Your task to perform on an android device: Open location settings Image 0: 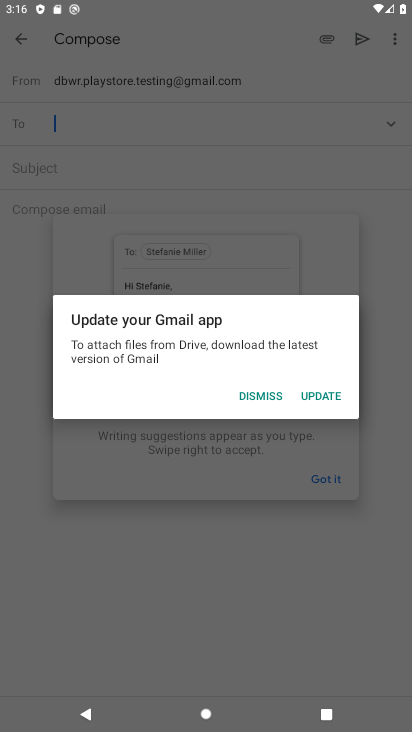
Step 0: click (312, 382)
Your task to perform on an android device: Open location settings Image 1: 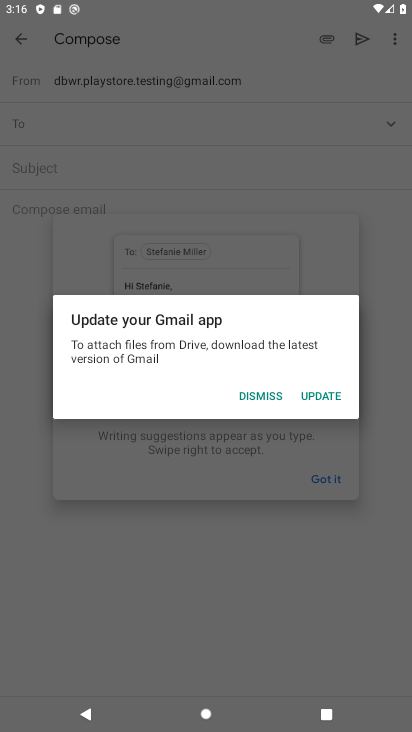
Step 1: click (316, 387)
Your task to perform on an android device: Open location settings Image 2: 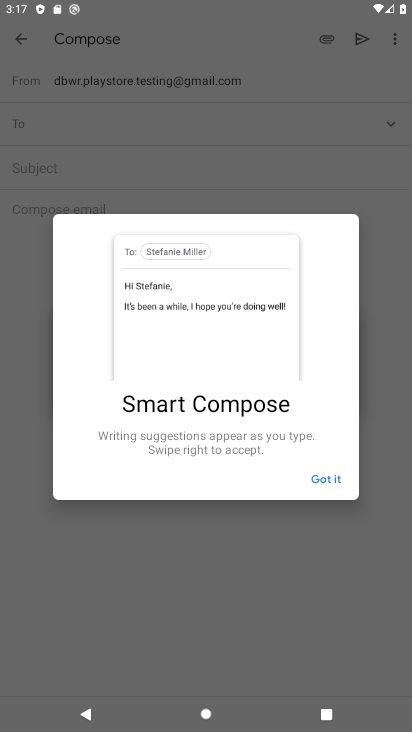
Step 2: press home button
Your task to perform on an android device: Open location settings Image 3: 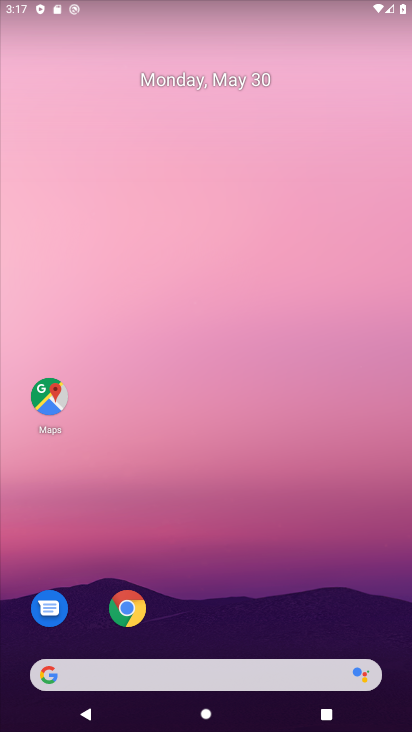
Step 3: drag from (181, 577) to (181, 206)
Your task to perform on an android device: Open location settings Image 4: 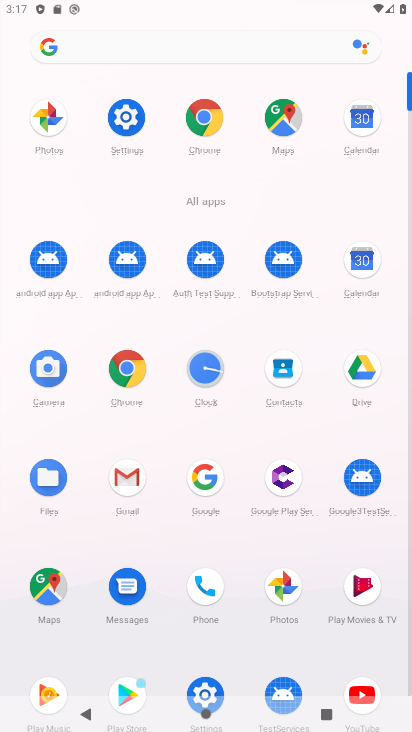
Step 4: click (122, 112)
Your task to perform on an android device: Open location settings Image 5: 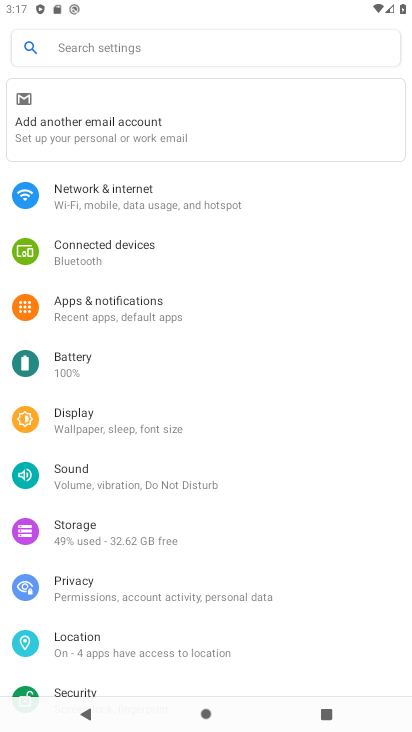
Step 5: click (92, 649)
Your task to perform on an android device: Open location settings Image 6: 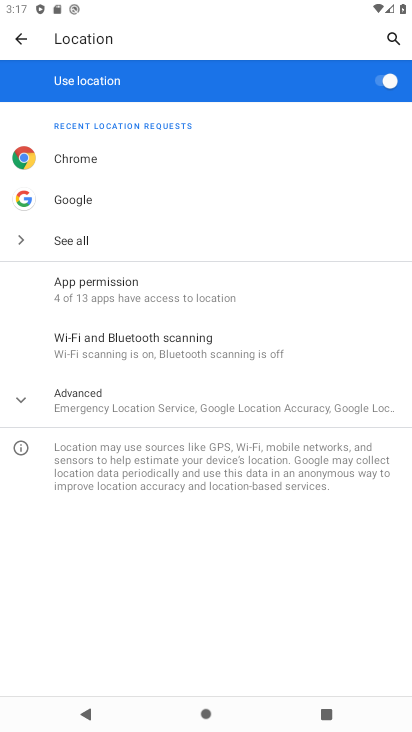
Step 6: task complete